Your task to perform on an android device: turn off location history Image 0: 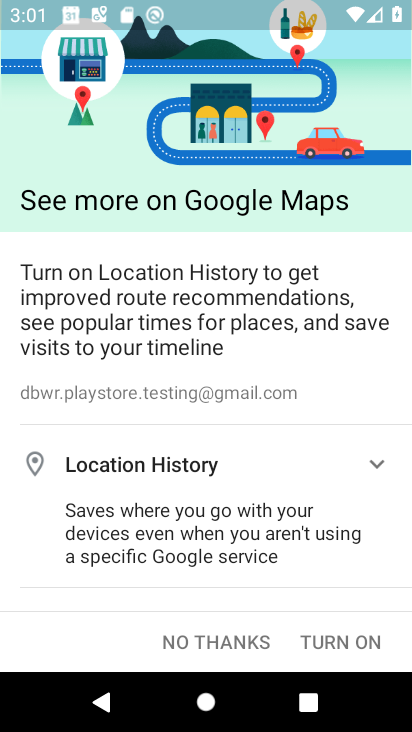
Step 0: press home button
Your task to perform on an android device: turn off location history Image 1: 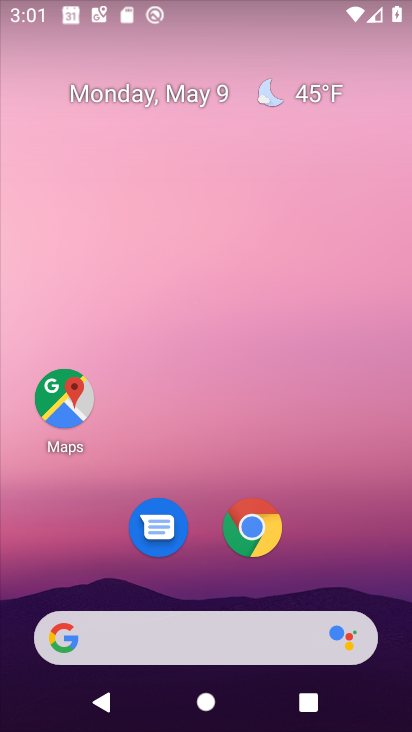
Step 1: drag from (226, 574) to (273, 320)
Your task to perform on an android device: turn off location history Image 2: 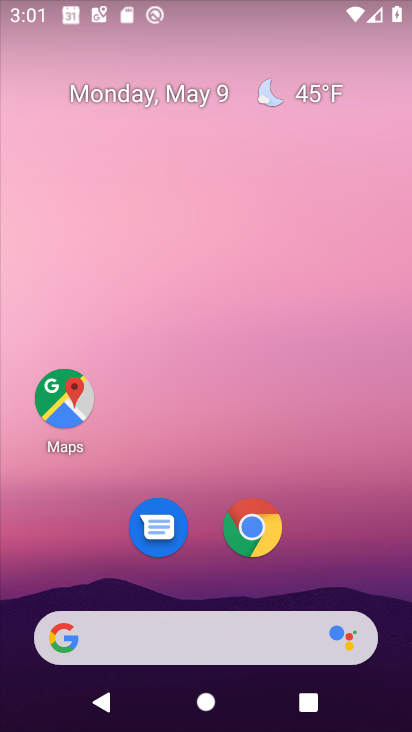
Step 2: drag from (206, 646) to (288, 232)
Your task to perform on an android device: turn off location history Image 3: 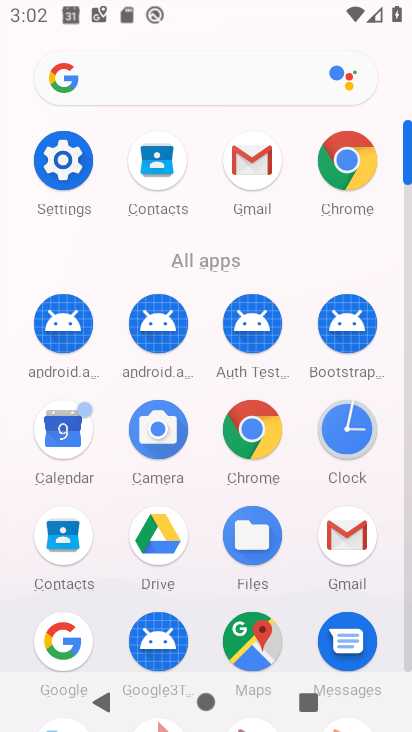
Step 3: click (73, 151)
Your task to perform on an android device: turn off location history Image 4: 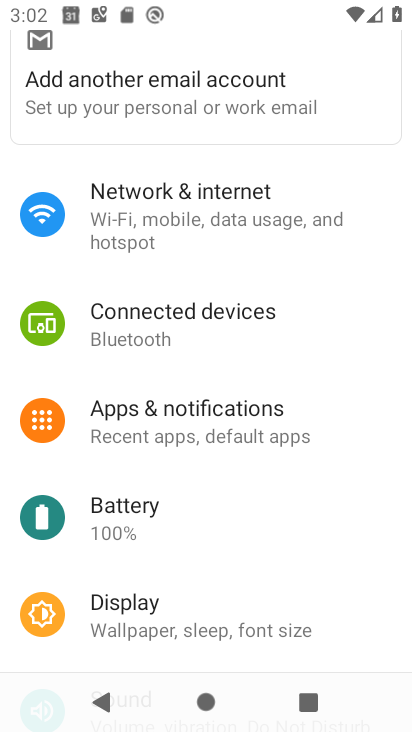
Step 4: drag from (235, 501) to (295, 222)
Your task to perform on an android device: turn off location history Image 5: 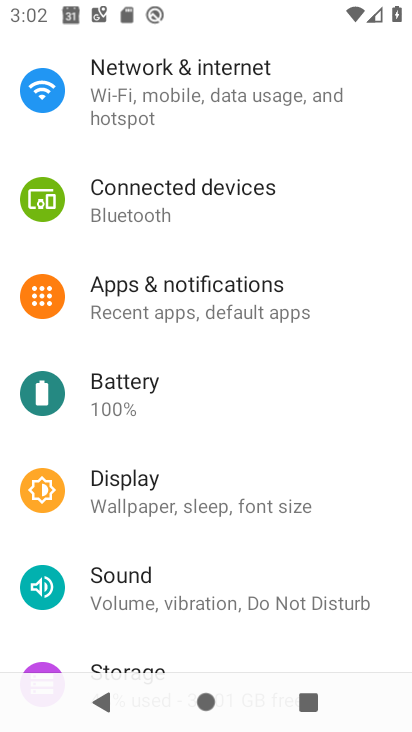
Step 5: drag from (274, 446) to (305, 275)
Your task to perform on an android device: turn off location history Image 6: 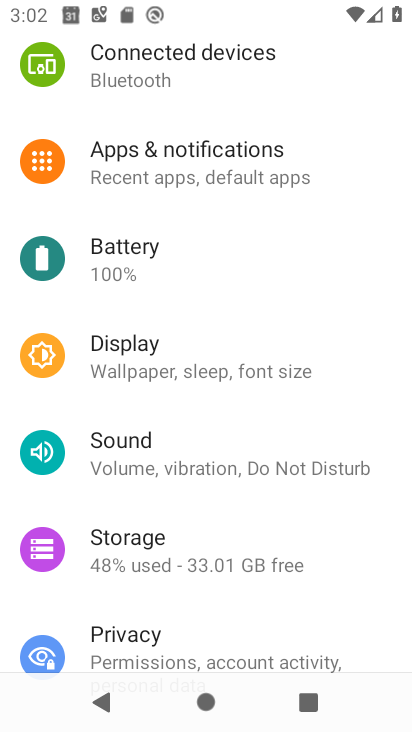
Step 6: drag from (254, 524) to (316, 261)
Your task to perform on an android device: turn off location history Image 7: 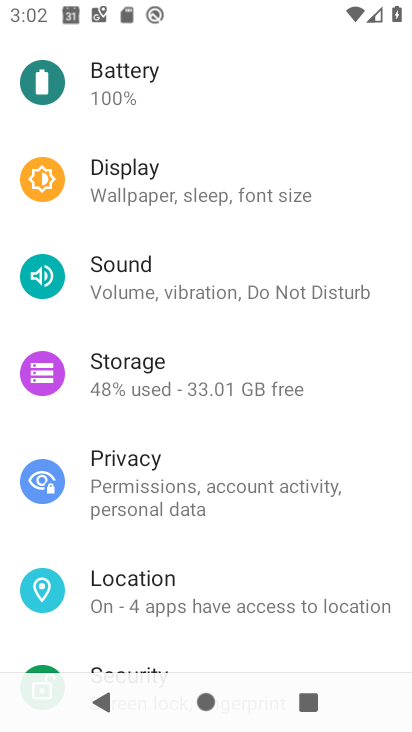
Step 7: click (223, 595)
Your task to perform on an android device: turn off location history Image 8: 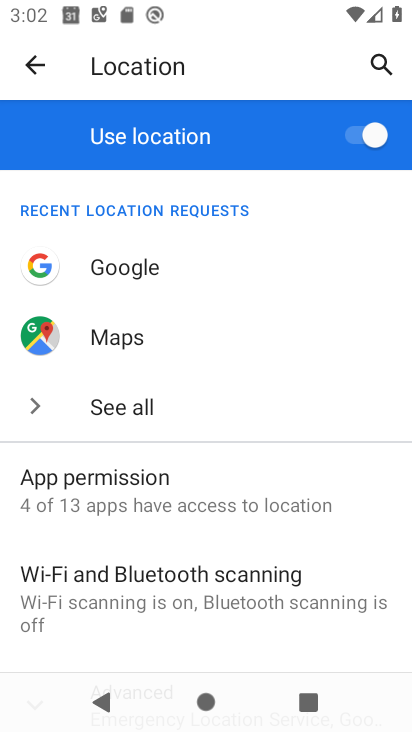
Step 8: drag from (231, 527) to (270, 254)
Your task to perform on an android device: turn off location history Image 9: 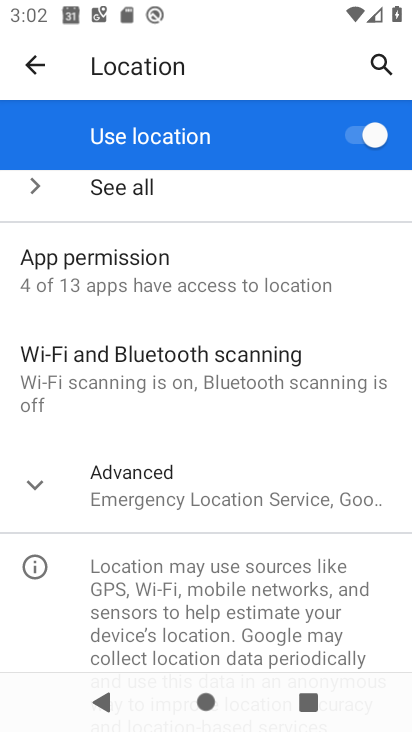
Step 9: click (222, 499)
Your task to perform on an android device: turn off location history Image 10: 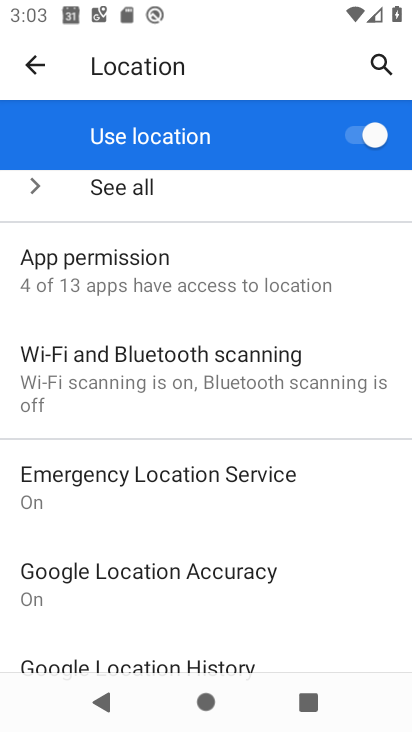
Step 10: drag from (272, 470) to (289, 260)
Your task to perform on an android device: turn off location history Image 11: 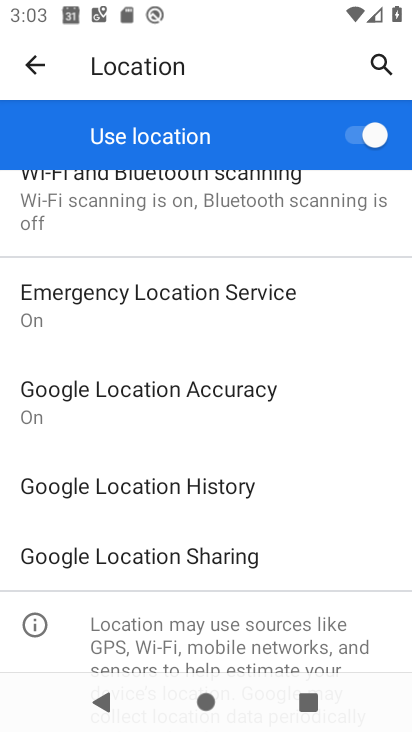
Step 11: click (261, 494)
Your task to perform on an android device: turn off location history Image 12: 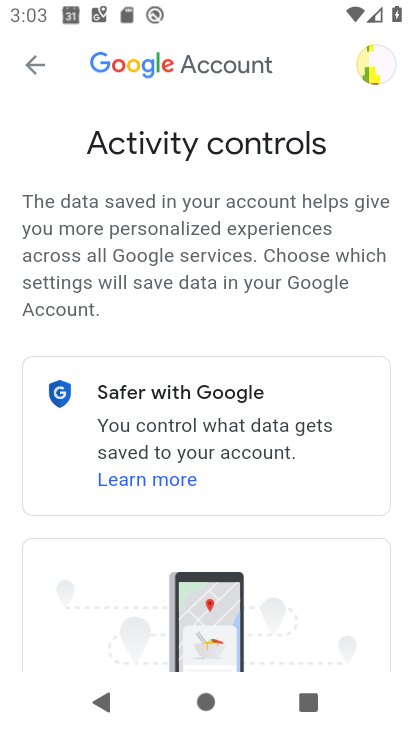
Step 12: drag from (270, 503) to (268, 83)
Your task to perform on an android device: turn off location history Image 13: 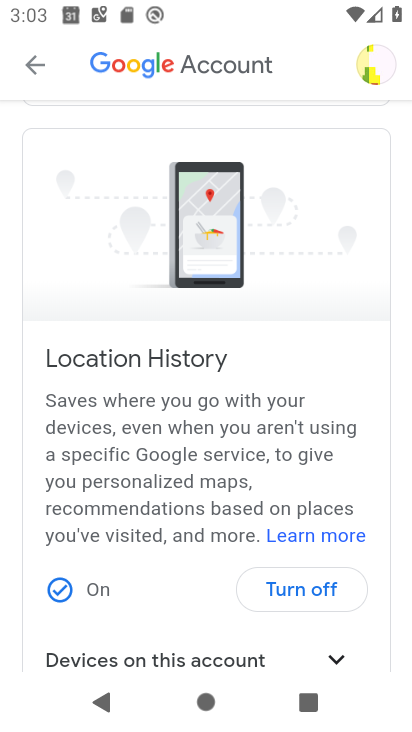
Step 13: drag from (186, 523) to (174, 342)
Your task to perform on an android device: turn off location history Image 14: 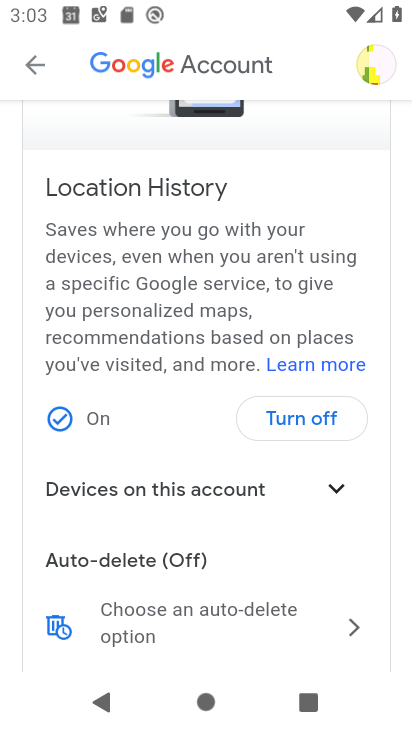
Step 14: click (325, 421)
Your task to perform on an android device: turn off location history Image 15: 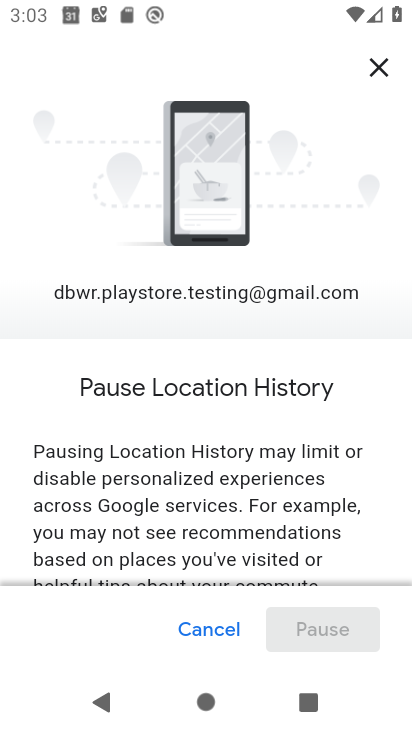
Step 15: drag from (270, 470) to (279, 25)
Your task to perform on an android device: turn off location history Image 16: 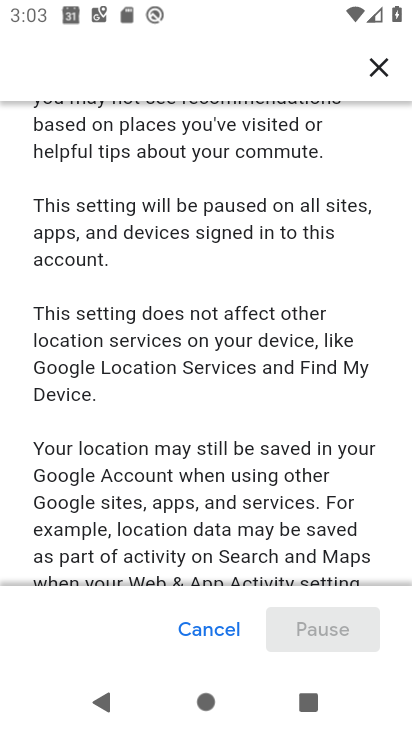
Step 16: drag from (263, 487) to (303, 11)
Your task to perform on an android device: turn off location history Image 17: 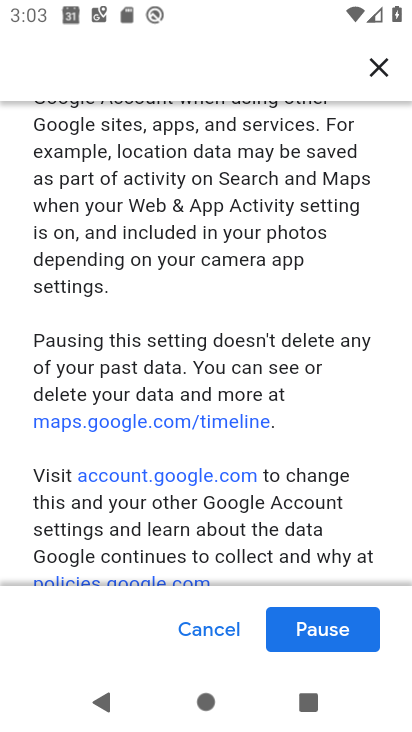
Step 17: click (314, 629)
Your task to perform on an android device: turn off location history Image 18: 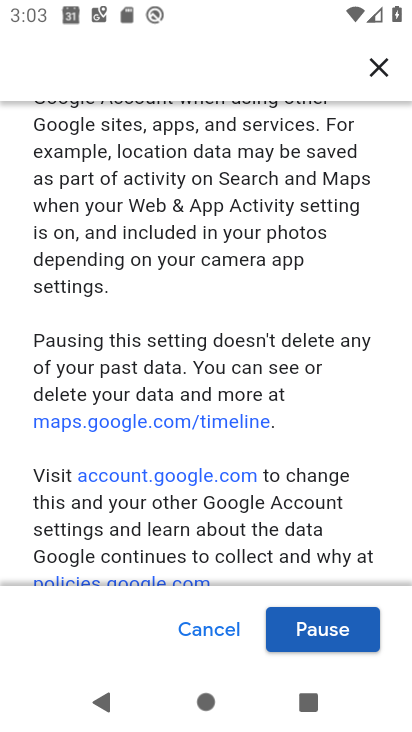
Step 18: click (330, 633)
Your task to perform on an android device: turn off location history Image 19: 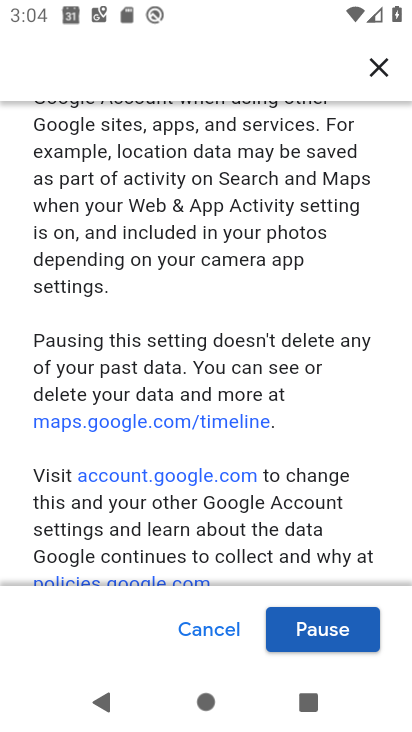
Step 19: click (321, 630)
Your task to perform on an android device: turn off location history Image 20: 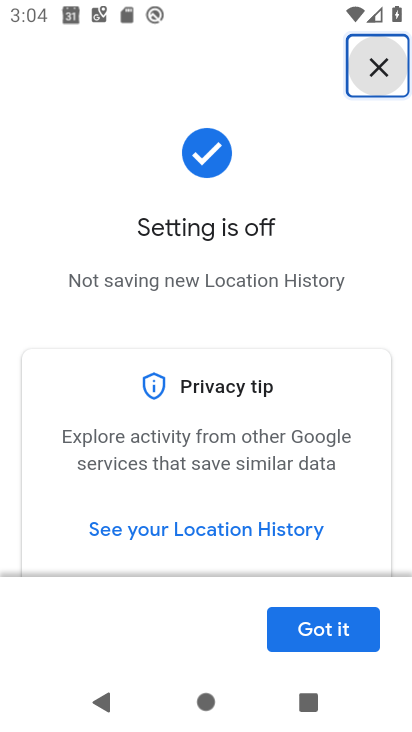
Step 20: click (312, 623)
Your task to perform on an android device: turn off location history Image 21: 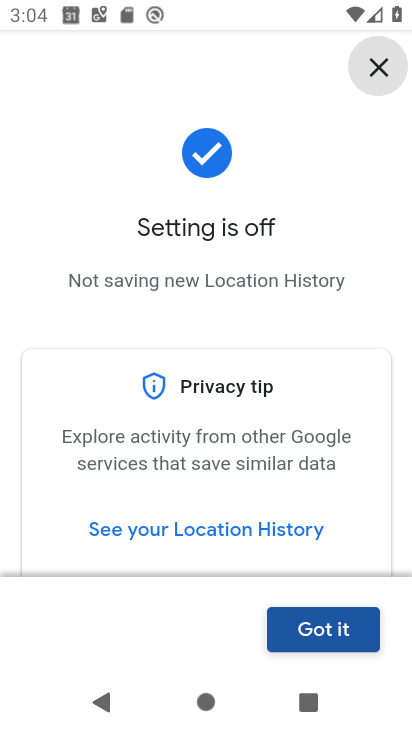
Step 21: task complete